Your task to perform on an android device: Search for Italian restaurants on Maps Image 0: 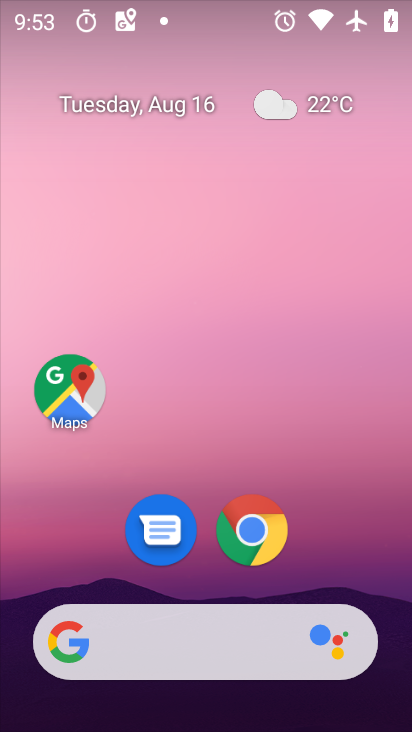
Step 0: drag from (339, 541) to (365, 103)
Your task to perform on an android device: Search for Italian restaurants on Maps Image 1: 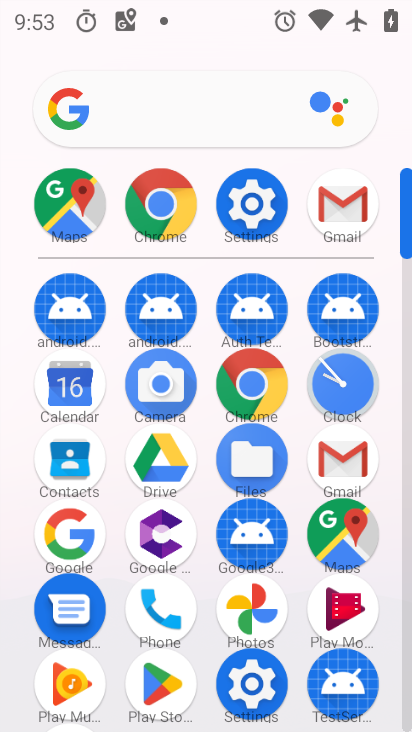
Step 1: click (355, 536)
Your task to perform on an android device: Search for Italian restaurants on Maps Image 2: 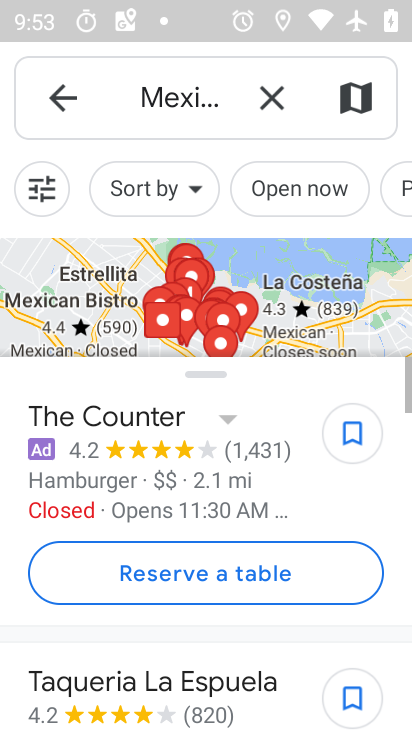
Step 2: click (219, 98)
Your task to perform on an android device: Search for Italian restaurants on Maps Image 3: 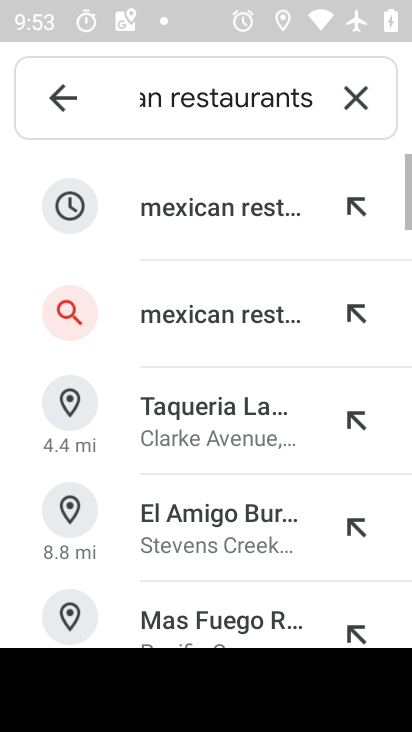
Step 3: click (346, 100)
Your task to perform on an android device: Search for Italian restaurants on Maps Image 4: 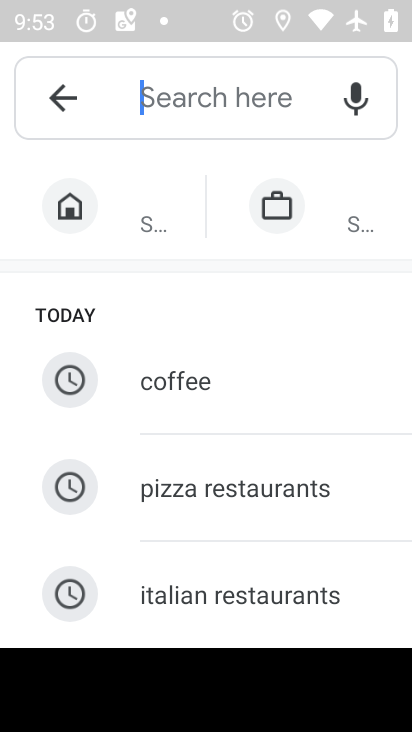
Step 4: click (291, 604)
Your task to perform on an android device: Search for Italian restaurants on Maps Image 5: 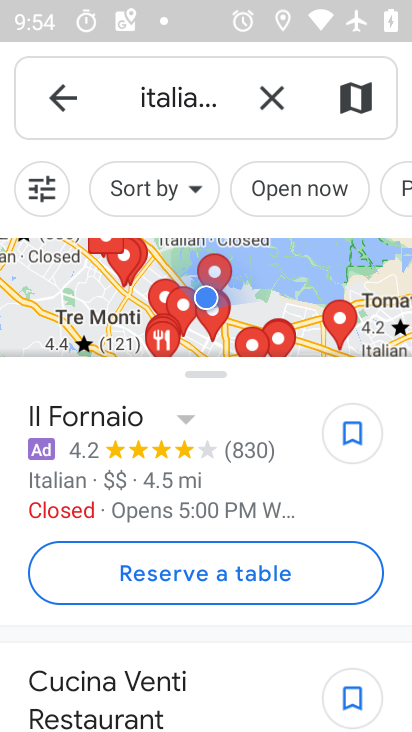
Step 5: task complete